Your task to perform on an android device: Open Amazon Image 0: 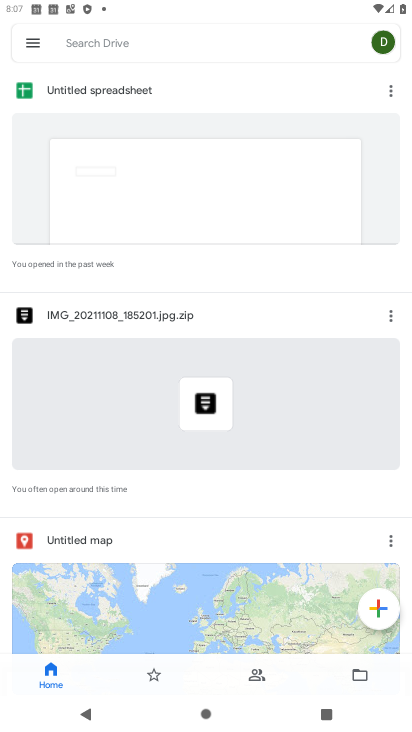
Step 0: press home button
Your task to perform on an android device: Open Amazon Image 1: 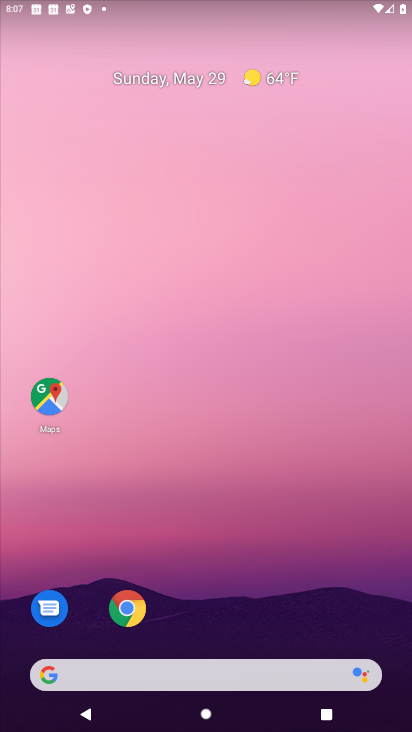
Step 1: click (125, 608)
Your task to perform on an android device: Open Amazon Image 2: 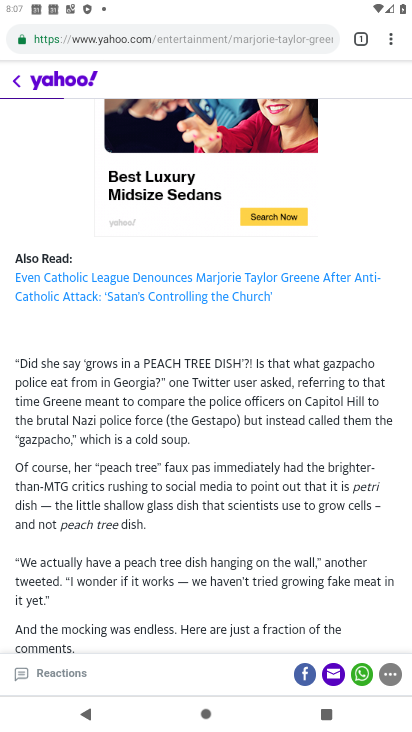
Step 2: click (391, 40)
Your task to perform on an android device: Open Amazon Image 3: 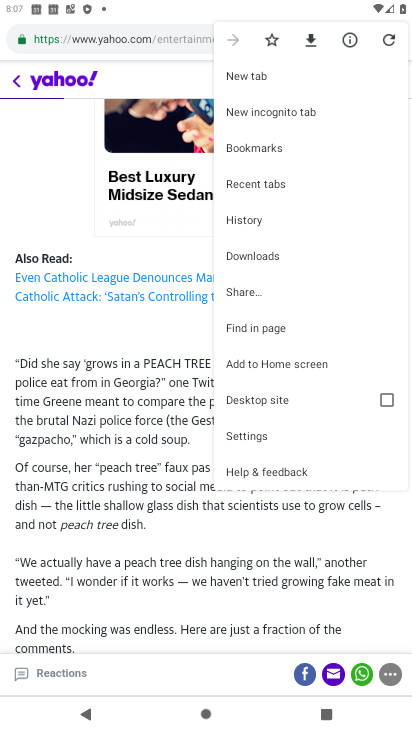
Step 3: click (249, 73)
Your task to perform on an android device: Open Amazon Image 4: 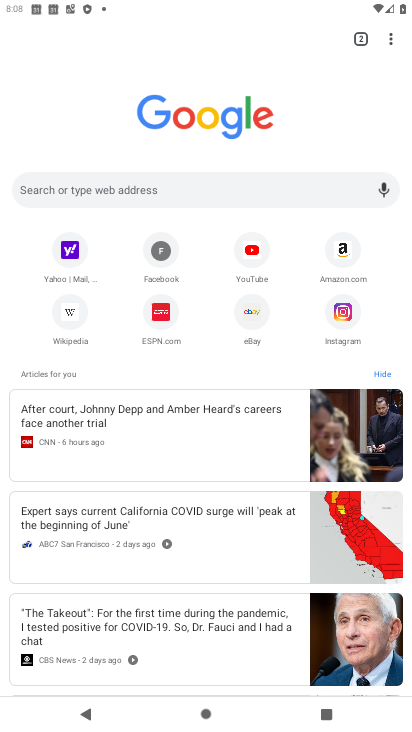
Step 4: click (340, 257)
Your task to perform on an android device: Open Amazon Image 5: 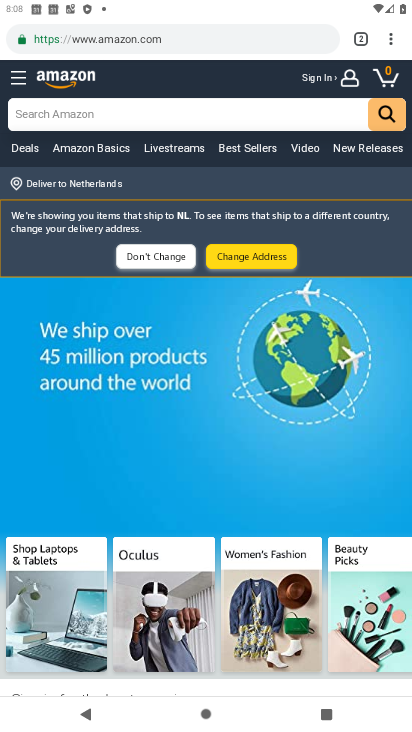
Step 5: task complete